Your task to perform on an android device: Search for Italian restaurants on Maps Image 0: 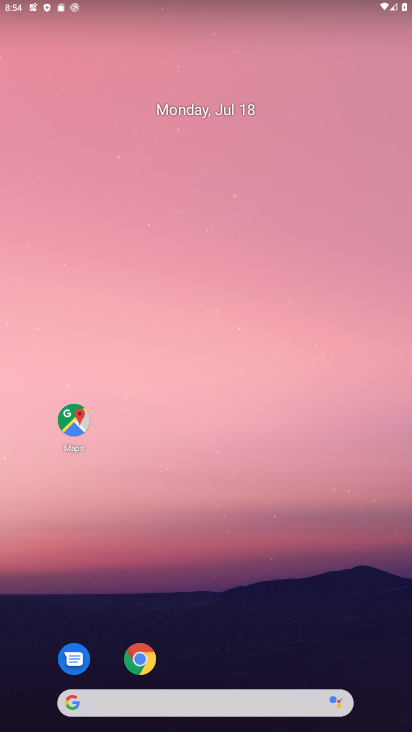
Step 0: drag from (216, 679) to (357, 5)
Your task to perform on an android device: Search for Italian restaurants on Maps Image 1: 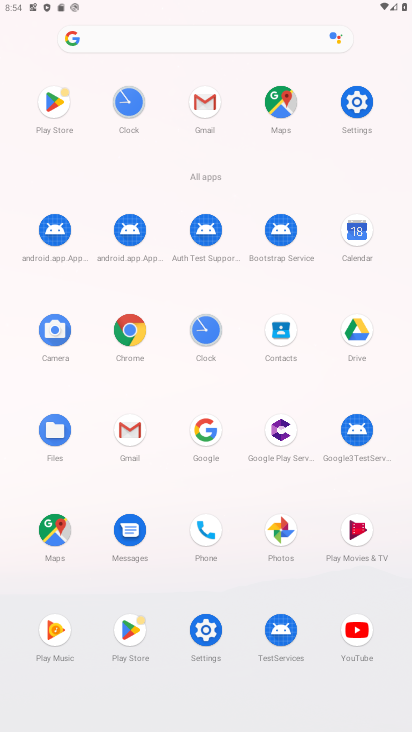
Step 1: click (47, 532)
Your task to perform on an android device: Search for Italian restaurants on Maps Image 2: 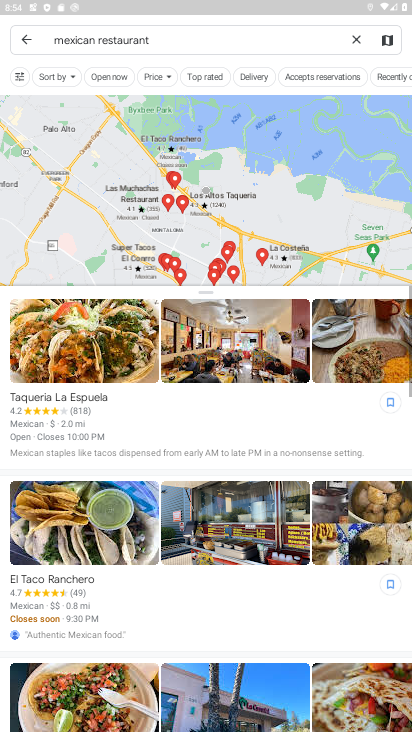
Step 2: click (356, 38)
Your task to perform on an android device: Search for Italian restaurants on Maps Image 3: 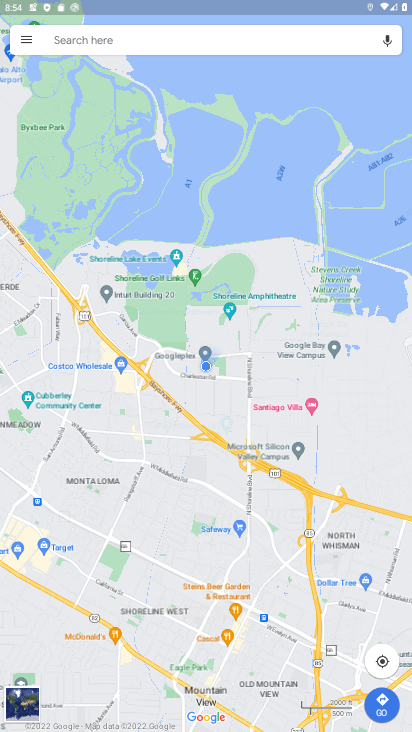
Step 3: click (239, 41)
Your task to perform on an android device: Search for Italian restaurants on Maps Image 4: 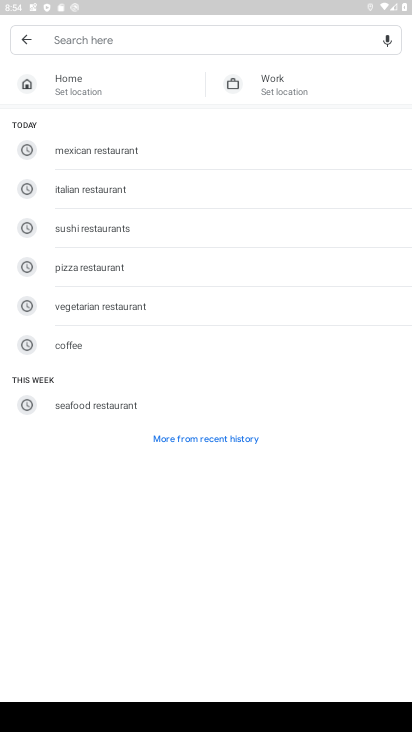
Step 4: click (131, 189)
Your task to perform on an android device: Search for Italian restaurants on Maps Image 5: 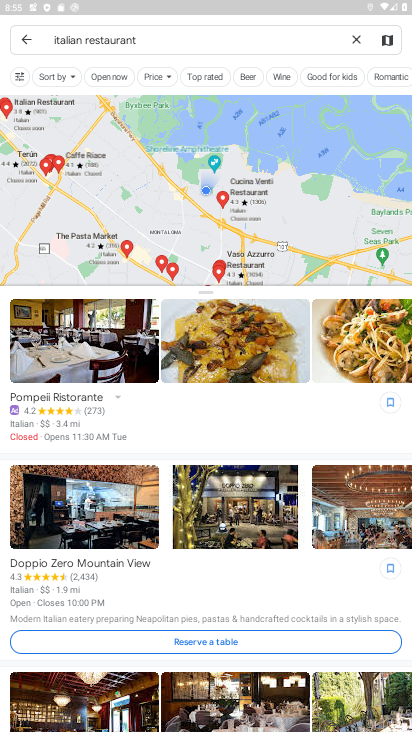
Step 5: task complete